Your task to perform on an android device: turn pop-ups off in chrome Image 0: 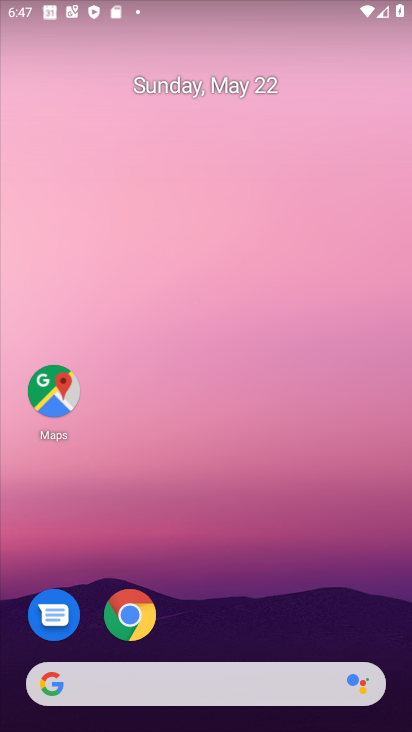
Step 0: click (129, 619)
Your task to perform on an android device: turn pop-ups off in chrome Image 1: 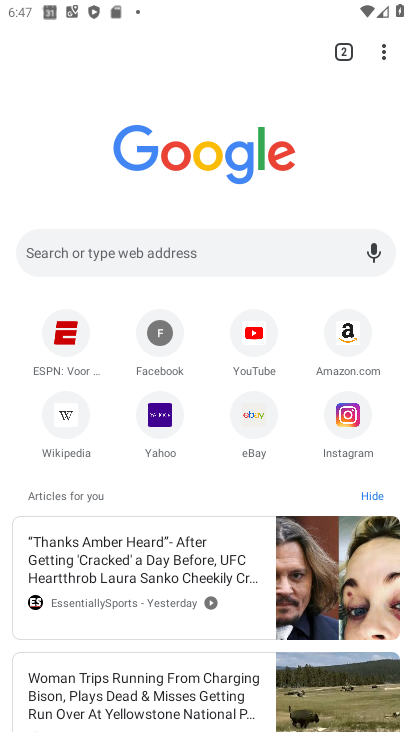
Step 1: click (382, 48)
Your task to perform on an android device: turn pop-ups off in chrome Image 2: 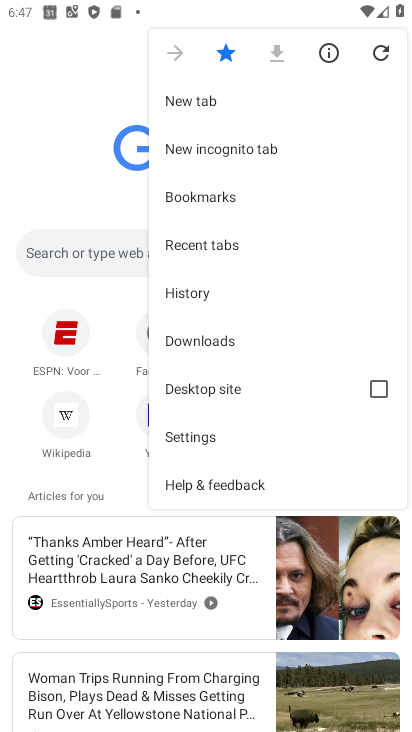
Step 2: click (190, 427)
Your task to perform on an android device: turn pop-ups off in chrome Image 3: 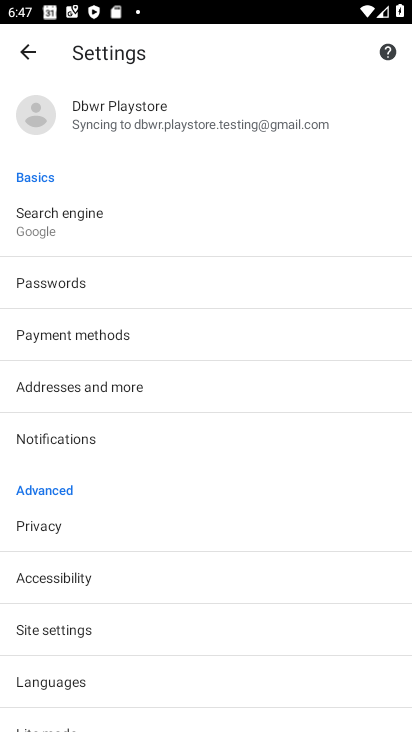
Step 3: drag from (157, 589) to (135, 337)
Your task to perform on an android device: turn pop-ups off in chrome Image 4: 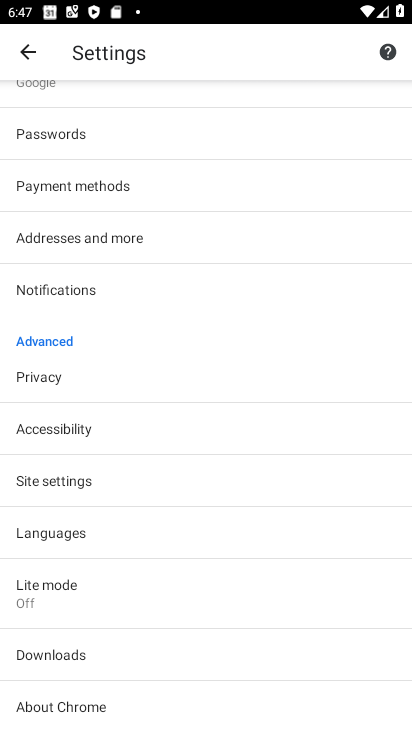
Step 4: click (60, 475)
Your task to perform on an android device: turn pop-ups off in chrome Image 5: 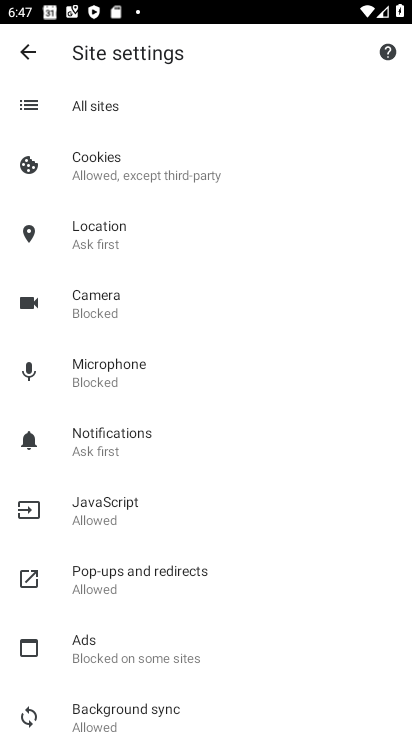
Step 5: click (110, 577)
Your task to perform on an android device: turn pop-ups off in chrome Image 6: 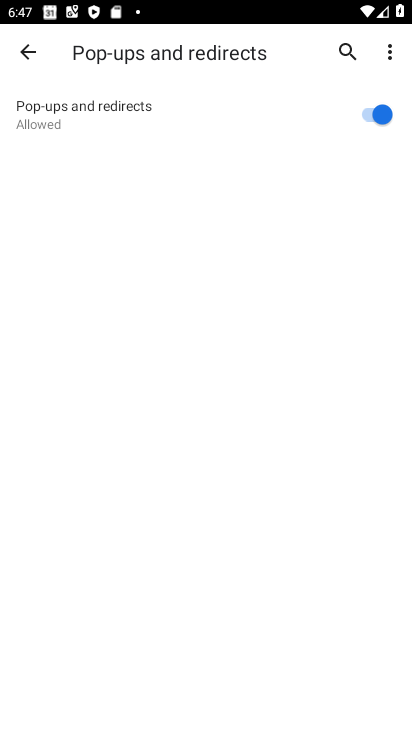
Step 6: click (386, 110)
Your task to perform on an android device: turn pop-ups off in chrome Image 7: 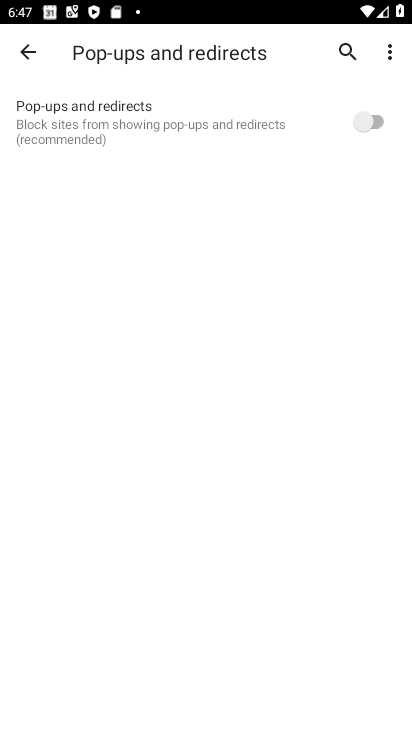
Step 7: task complete